Your task to perform on an android device: Search for Mexican restaurants on Maps Image 0: 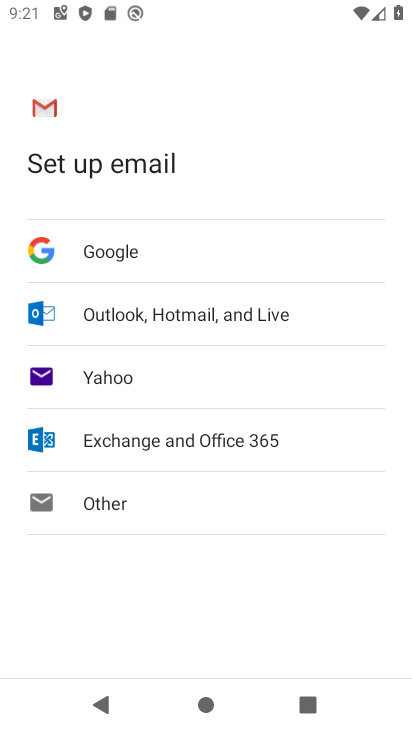
Step 0: press home button
Your task to perform on an android device: Search for Mexican restaurants on Maps Image 1: 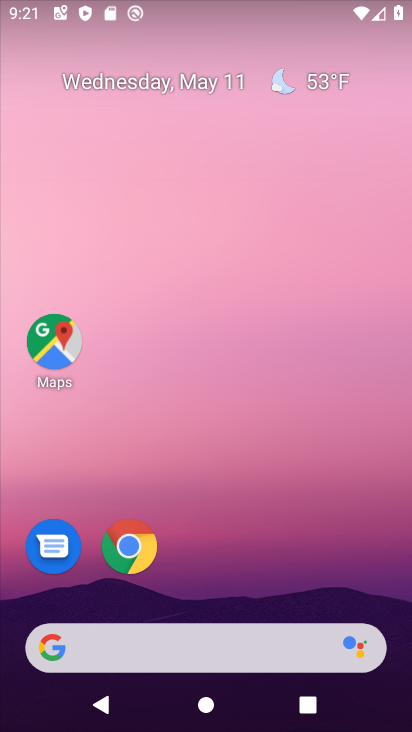
Step 1: drag from (381, 616) to (279, 52)
Your task to perform on an android device: Search for Mexican restaurants on Maps Image 2: 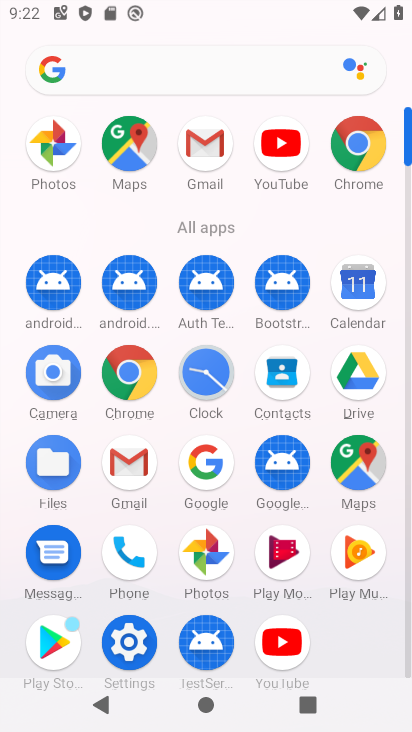
Step 2: click (344, 462)
Your task to perform on an android device: Search for Mexican restaurants on Maps Image 3: 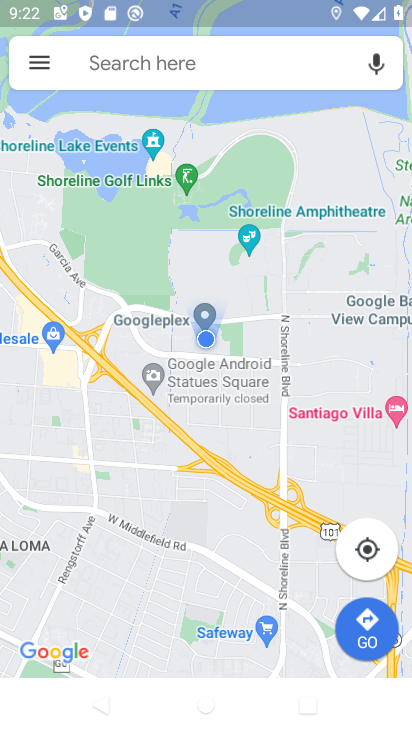
Step 3: click (129, 68)
Your task to perform on an android device: Search for Mexican restaurants on Maps Image 4: 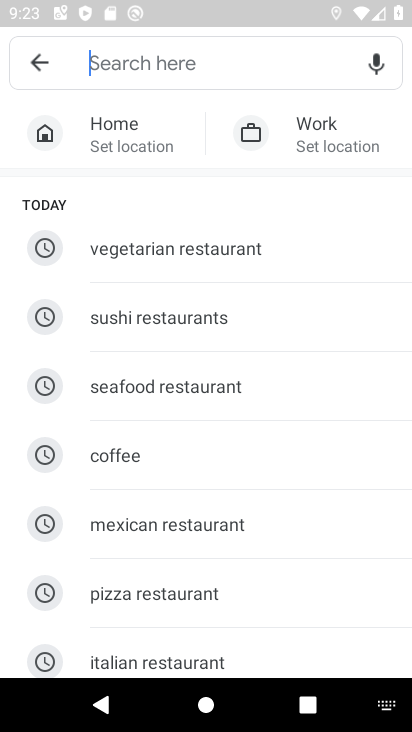
Step 4: click (221, 528)
Your task to perform on an android device: Search for Mexican restaurants on Maps Image 5: 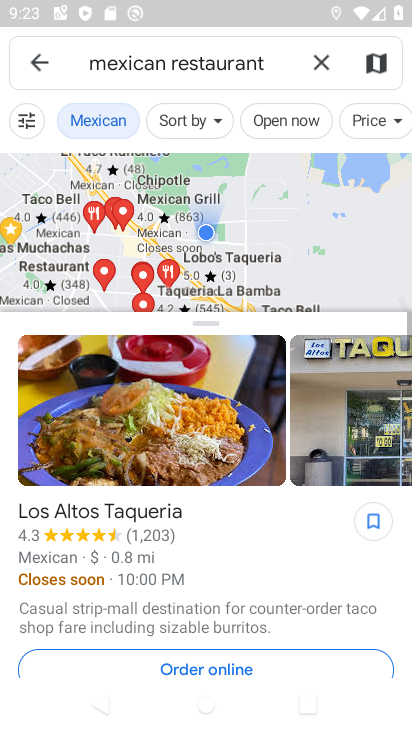
Step 5: task complete